Your task to perform on an android device: set default search engine in the chrome app Image 0: 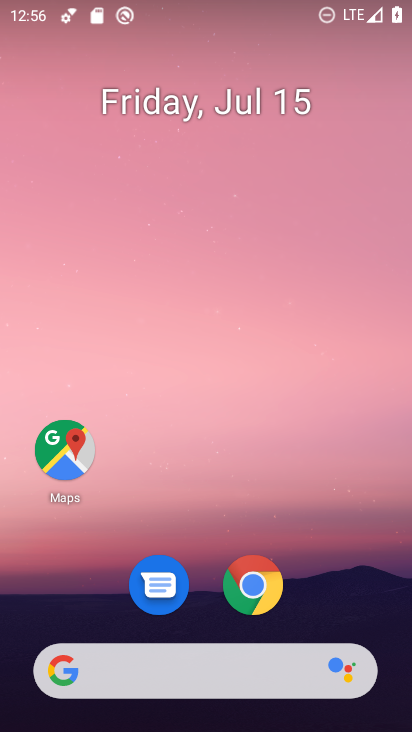
Step 0: click (271, 585)
Your task to perform on an android device: set default search engine in the chrome app Image 1: 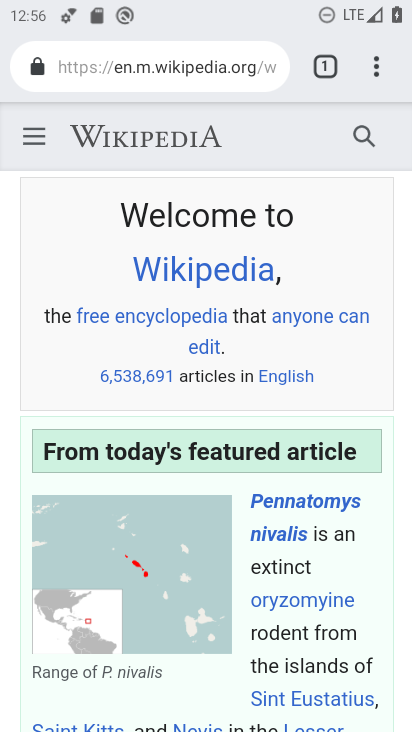
Step 1: click (380, 64)
Your task to perform on an android device: set default search engine in the chrome app Image 2: 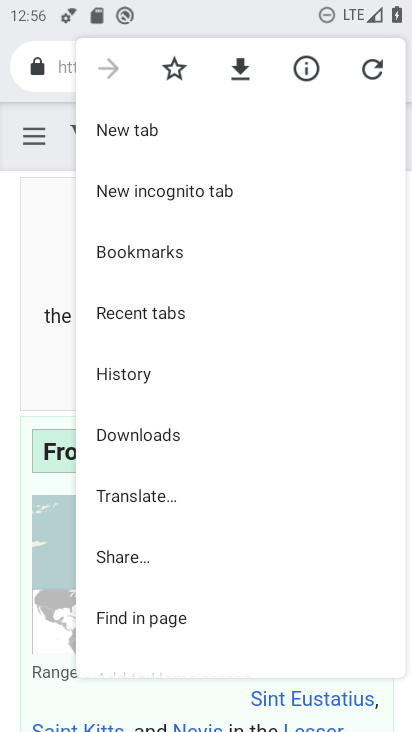
Step 2: drag from (237, 499) to (261, 188)
Your task to perform on an android device: set default search engine in the chrome app Image 3: 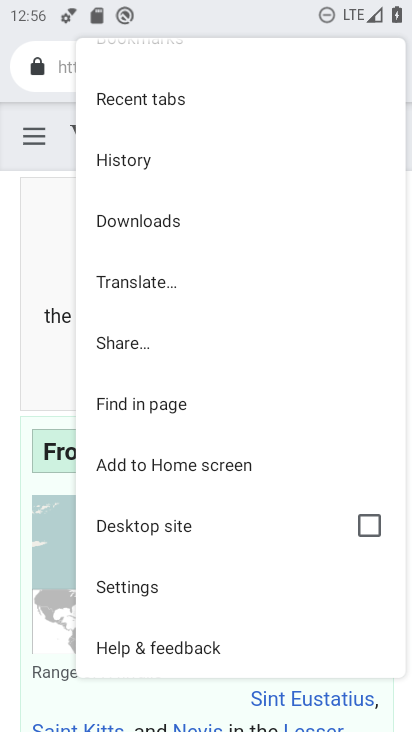
Step 3: click (159, 583)
Your task to perform on an android device: set default search engine in the chrome app Image 4: 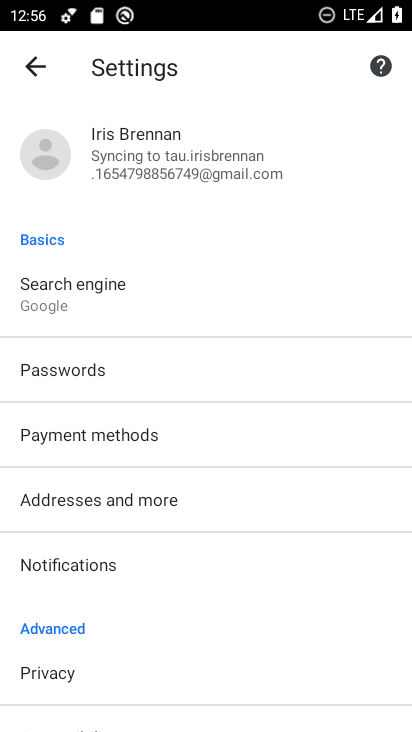
Step 4: click (95, 305)
Your task to perform on an android device: set default search engine in the chrome app Image 5: 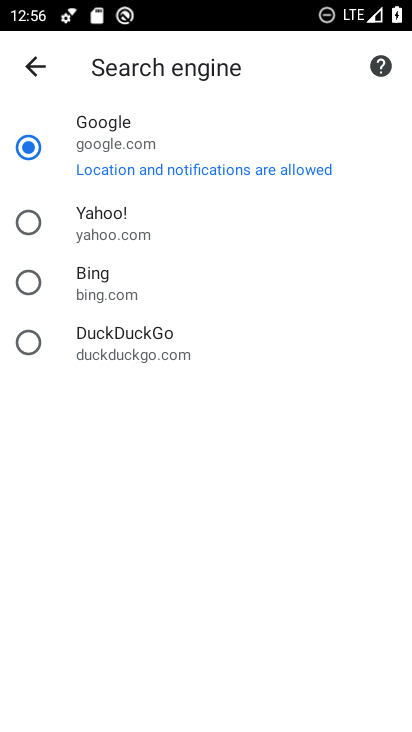
Step 5: task complete